Your task to perform on an android device: Search for macbook air on ebay.com, select the first entry, and add it to the cart. Image 0: 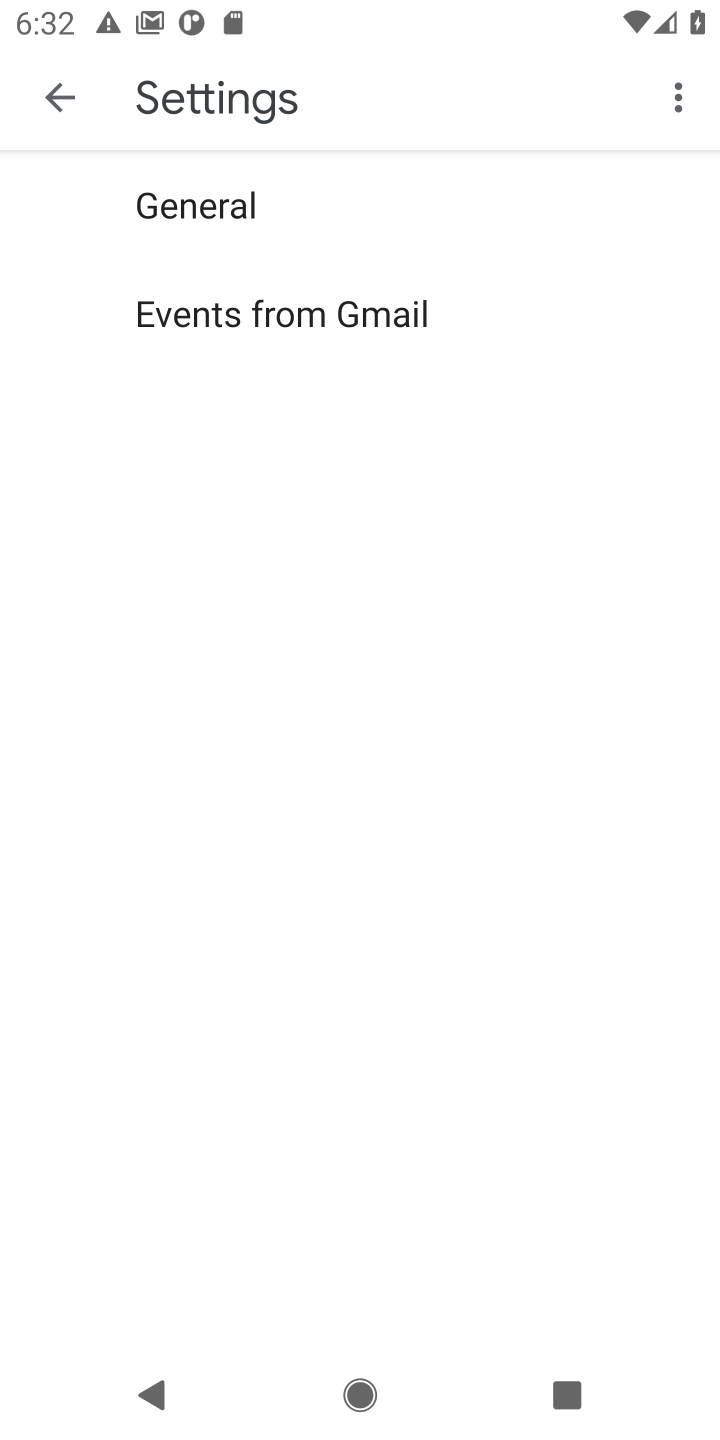
Step 0: press home button
Your task to perform on an android device: Search for macbook air on ebay.com, select the first entry, and add it to the cart. Image 1: 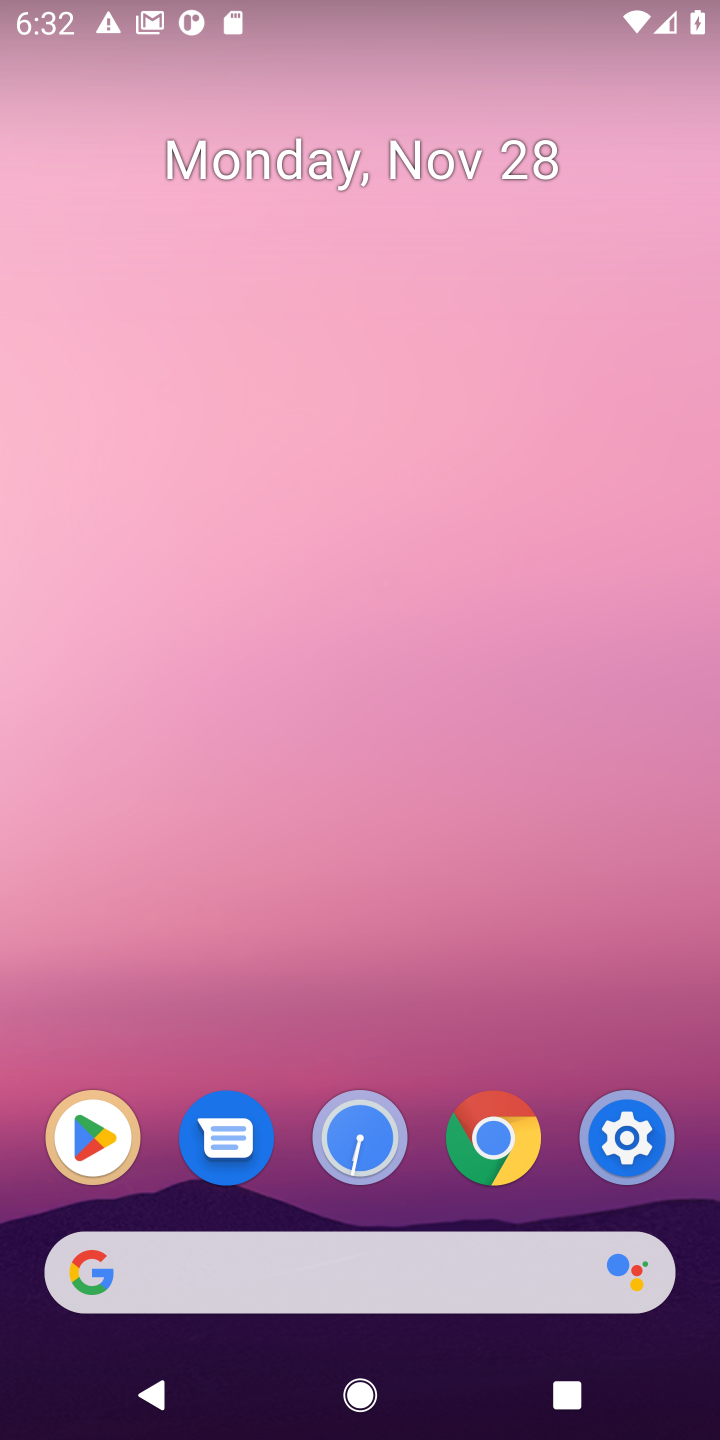
Step 1: click (498, 1142)
Your task to perform on an android device: Search for macbook air on ebay.com, select the first entry, and add it to the cart. Image 2: 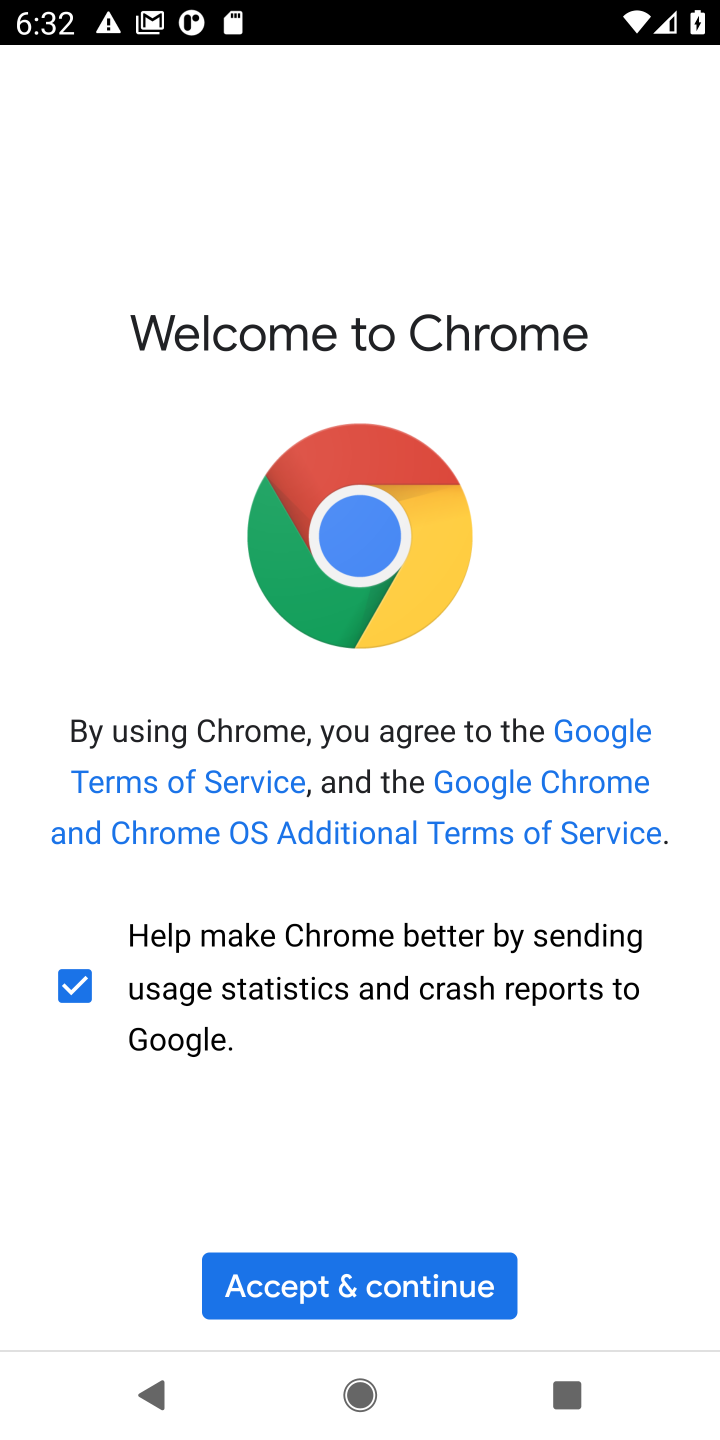
Step 2: click (365, 1290)
Your task to perform on an android device: Search for macbook air on ebay.com, select the first entry, and add it to the cart. Image 3: 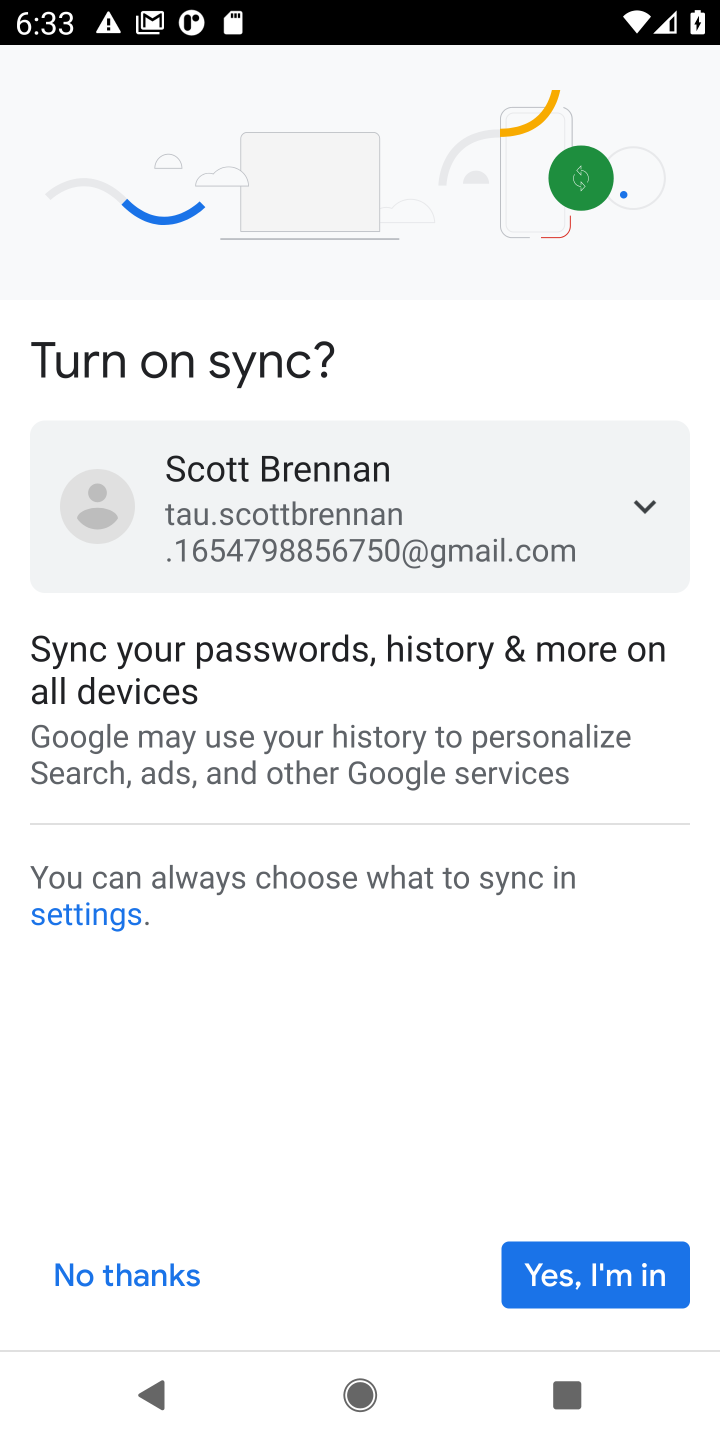
Step 3: click (98, 1265)
Your task to perform on an android device: Search for macbook air on ebay.com, select the first entry, and add it to the cart. Image 4: 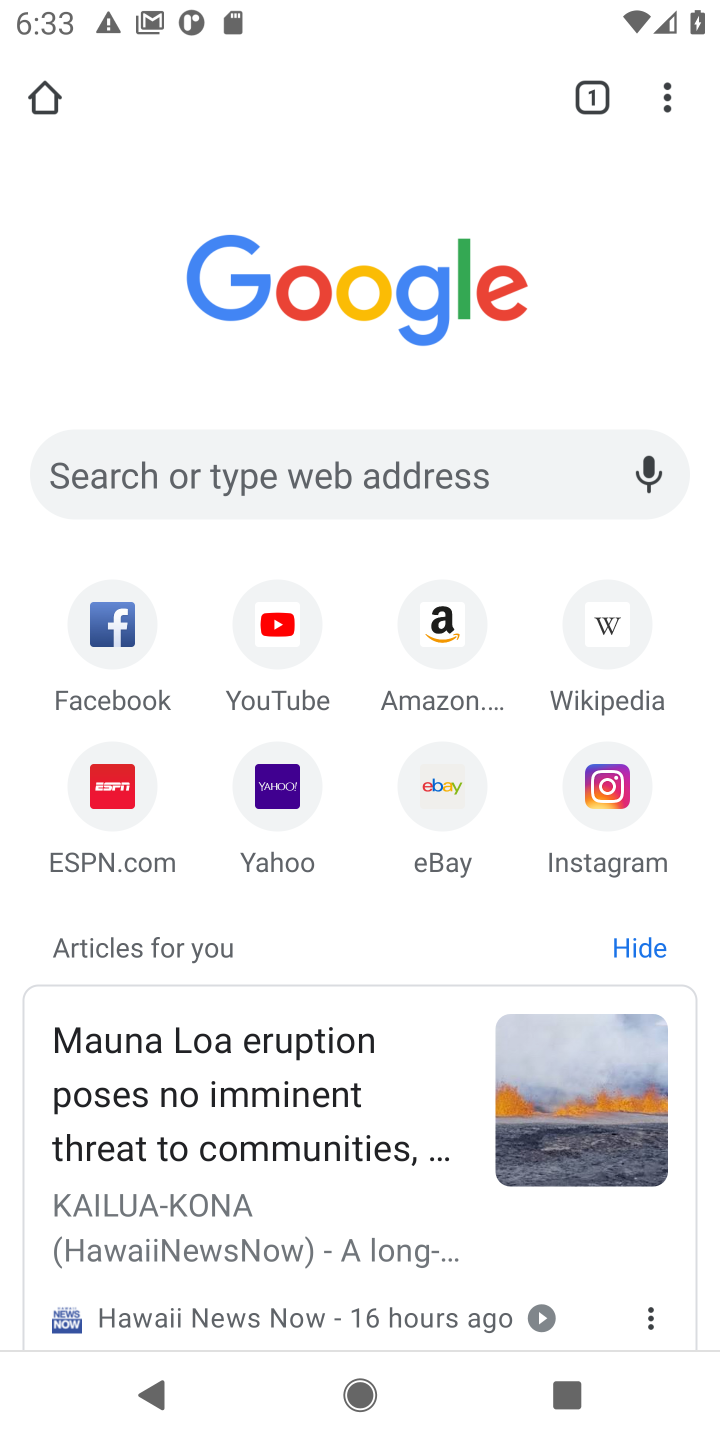
Step 4: click (428, 787)
Your task to perform on an android device: Search for macbook air on ebay.com, select the first entry, and add it to the cart. Image 5: 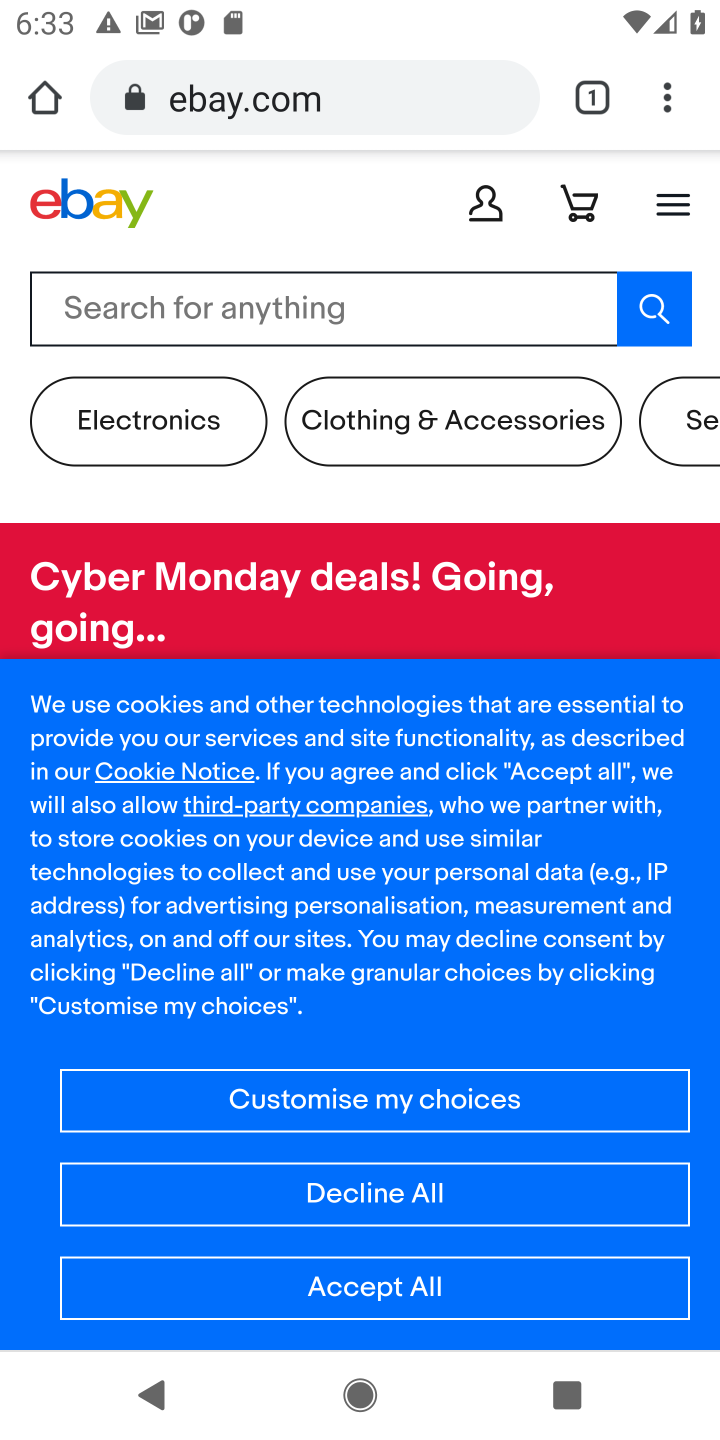
Step 5: click (131, 310)
Your task to perform on an android device: Search for macbook air on ebay.com, select the first entry, and add it to the cart. Image 6: 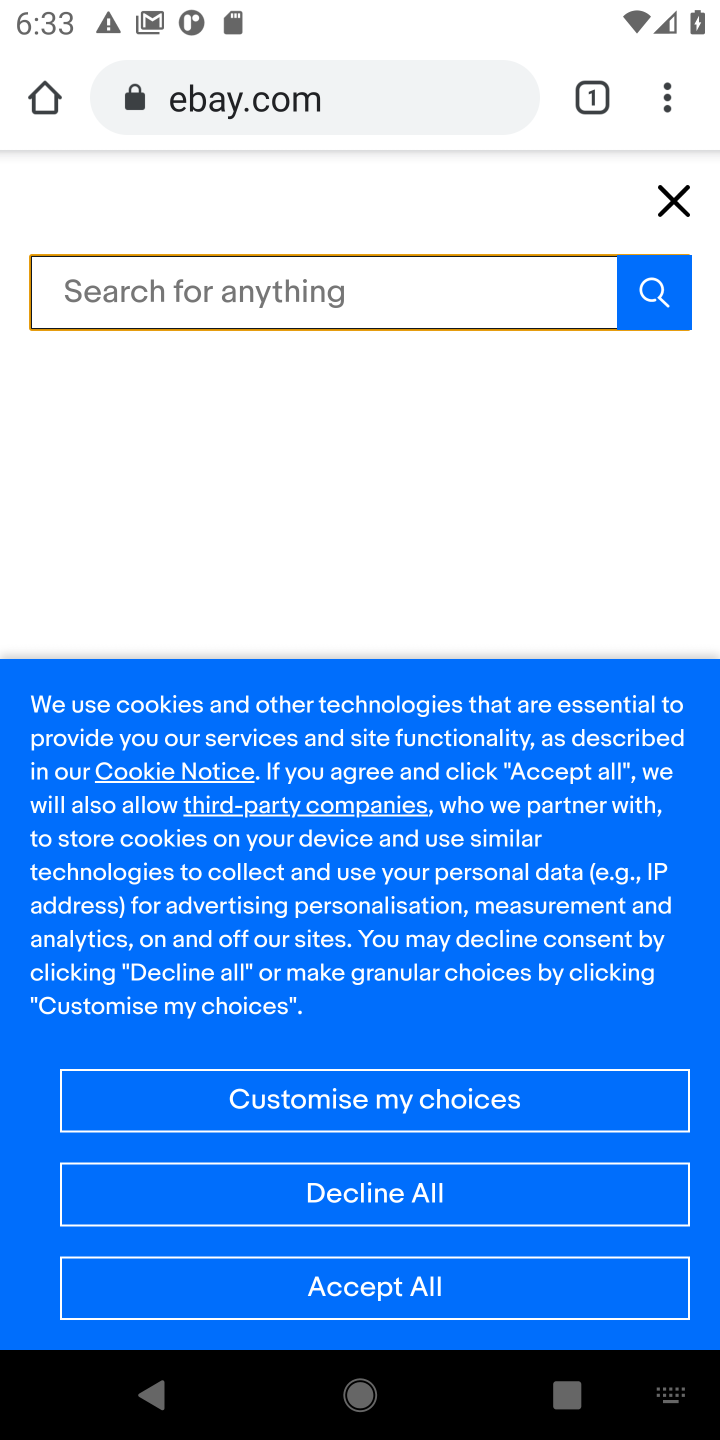
Step 6: type "macbook air"
Your task to perform on an android device: Search for macbook air on ebay.com, select the first entry, and add it to the cart. Image 7: 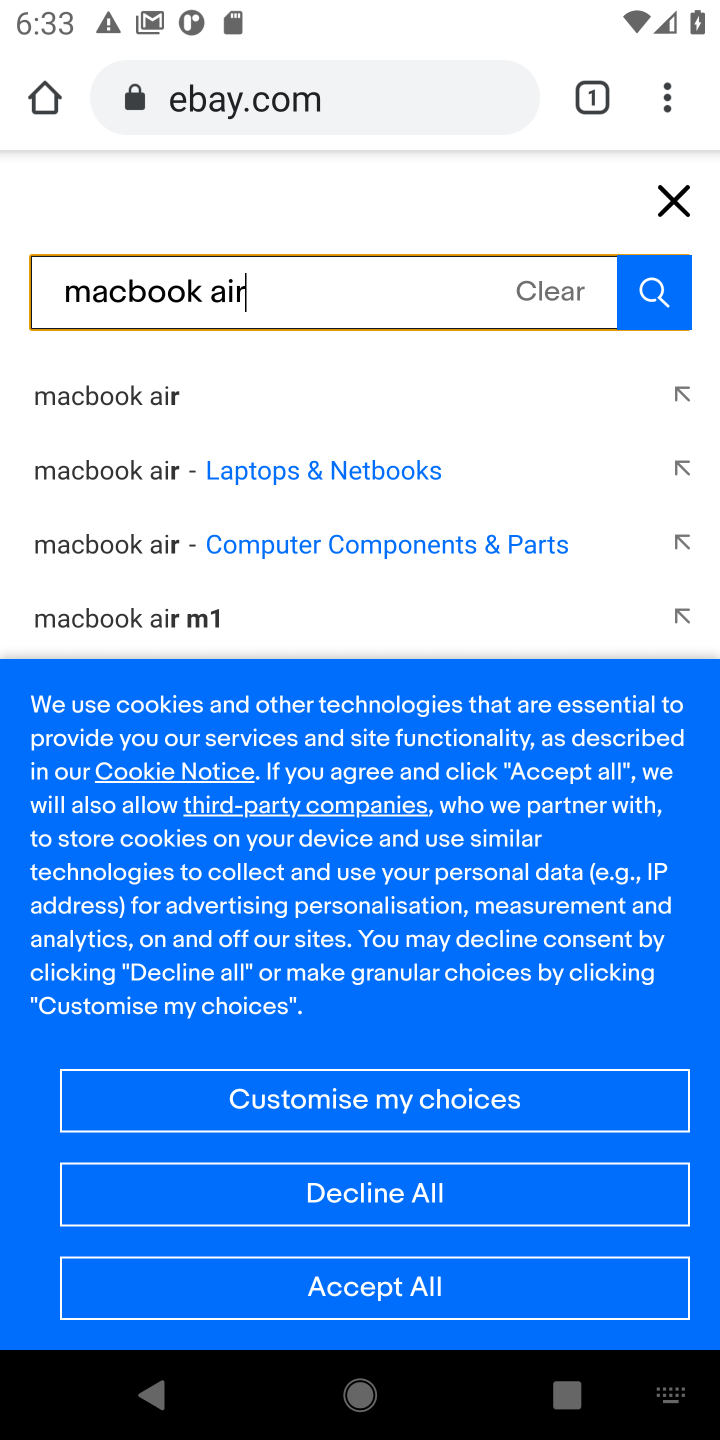
Step 7: click (128, 404)
Your task to perform on an android device: Search for macbook air on ebay.com, select the first entry, and add it to the cart. Image 8: 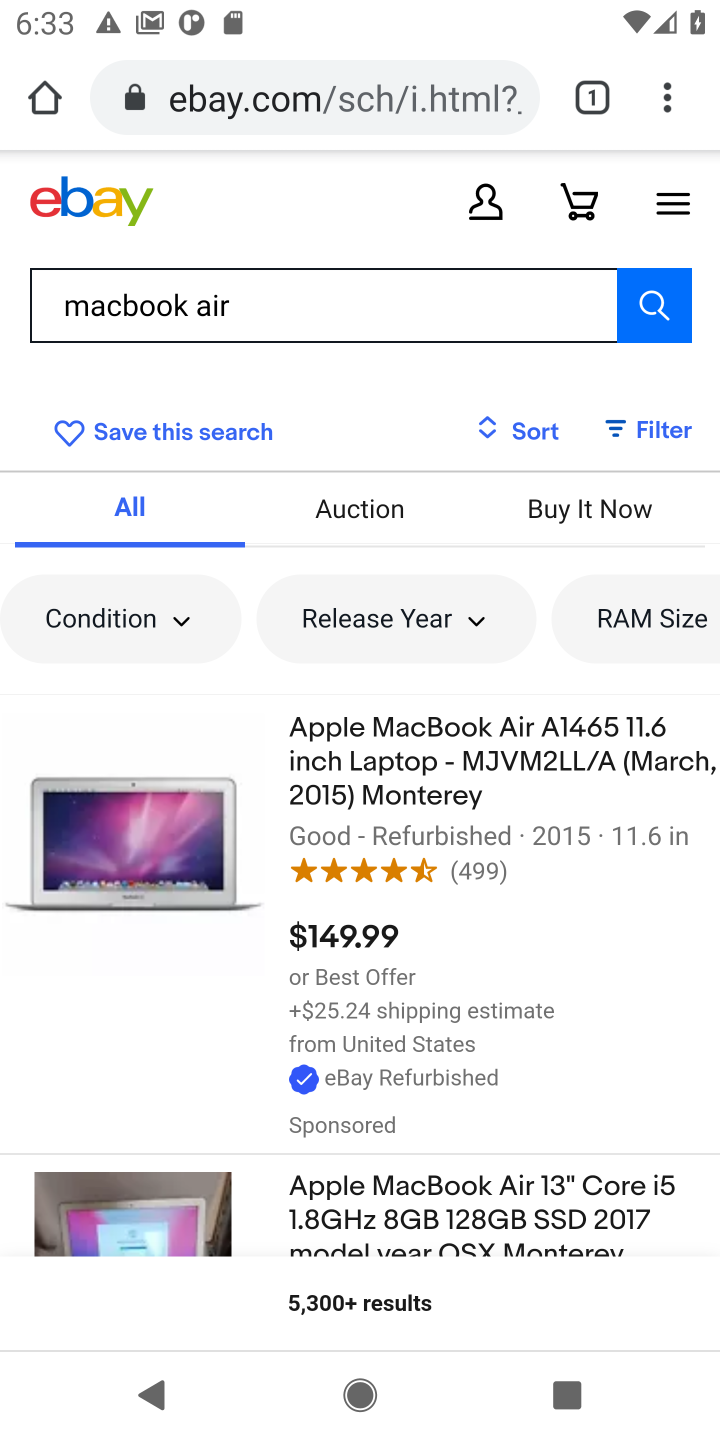
Step 8: click (334, 810)
Your task to perform on an android device: Search for macbook air on ebay.com, select the first entry, and add it to the cart. Image 9: 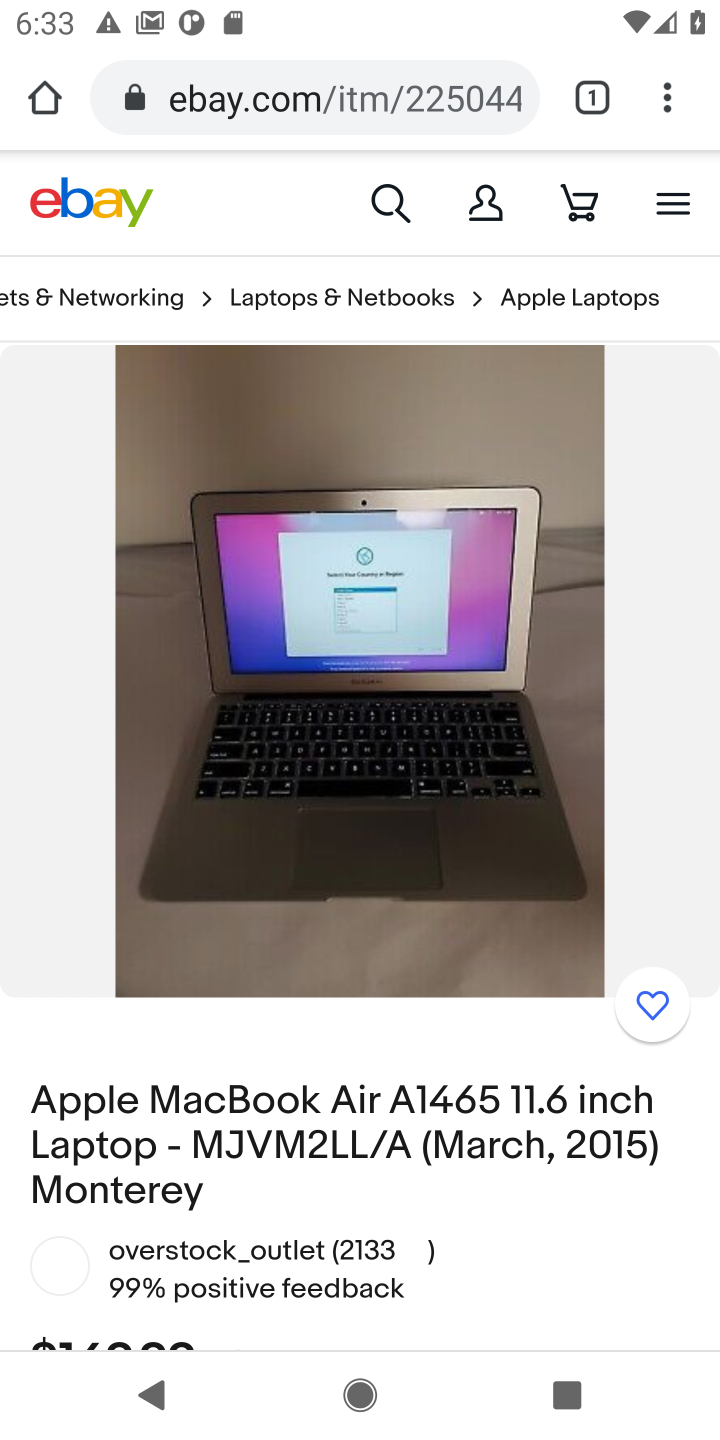
Step 9: drag from (378, 1031) to (346, 513)
Your task to perform on an android device: Search for macbook air on ebay.com, select the first entry, and add it to the cart. Image 10: 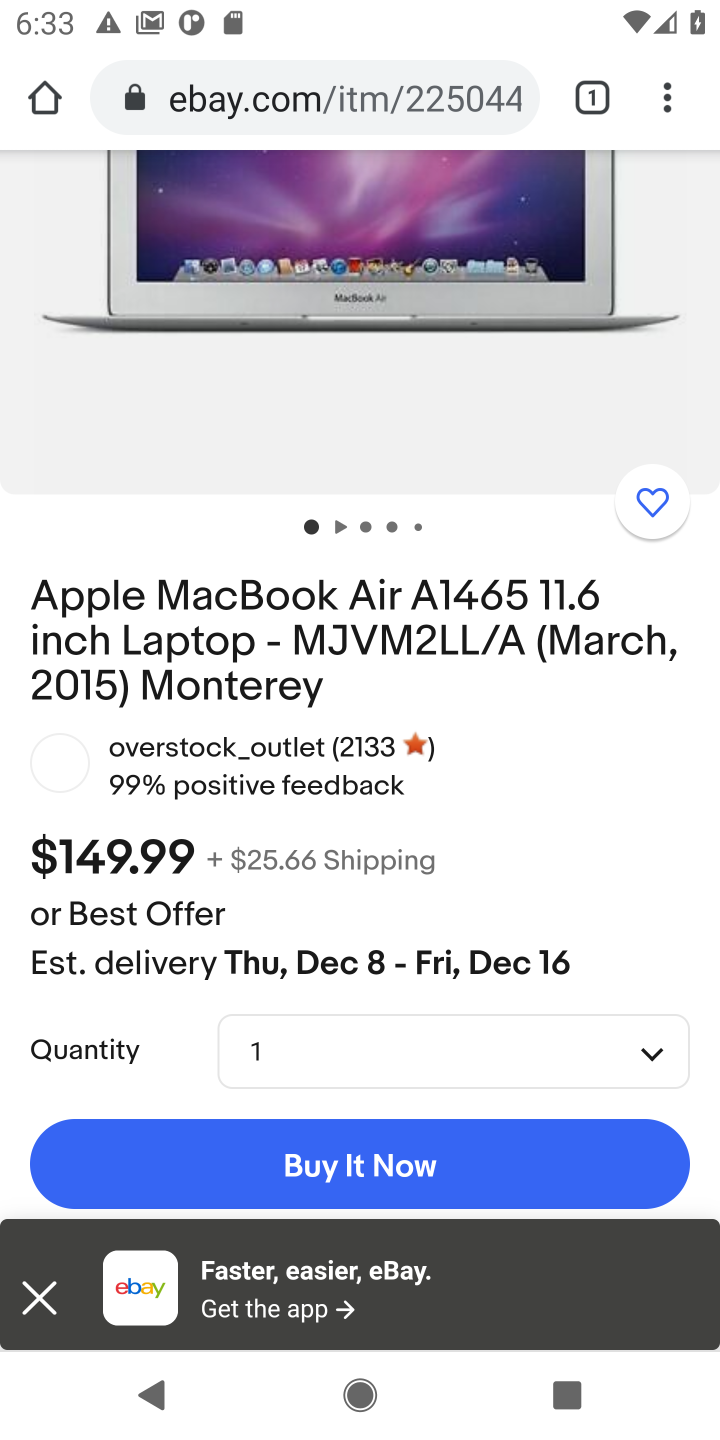
Step 10: drag from (591, 944) to (565, 635)
Your task to perform on an android device: Search for macbook air on ebay.com, select the first entry, and add it to the cart. Image 11: 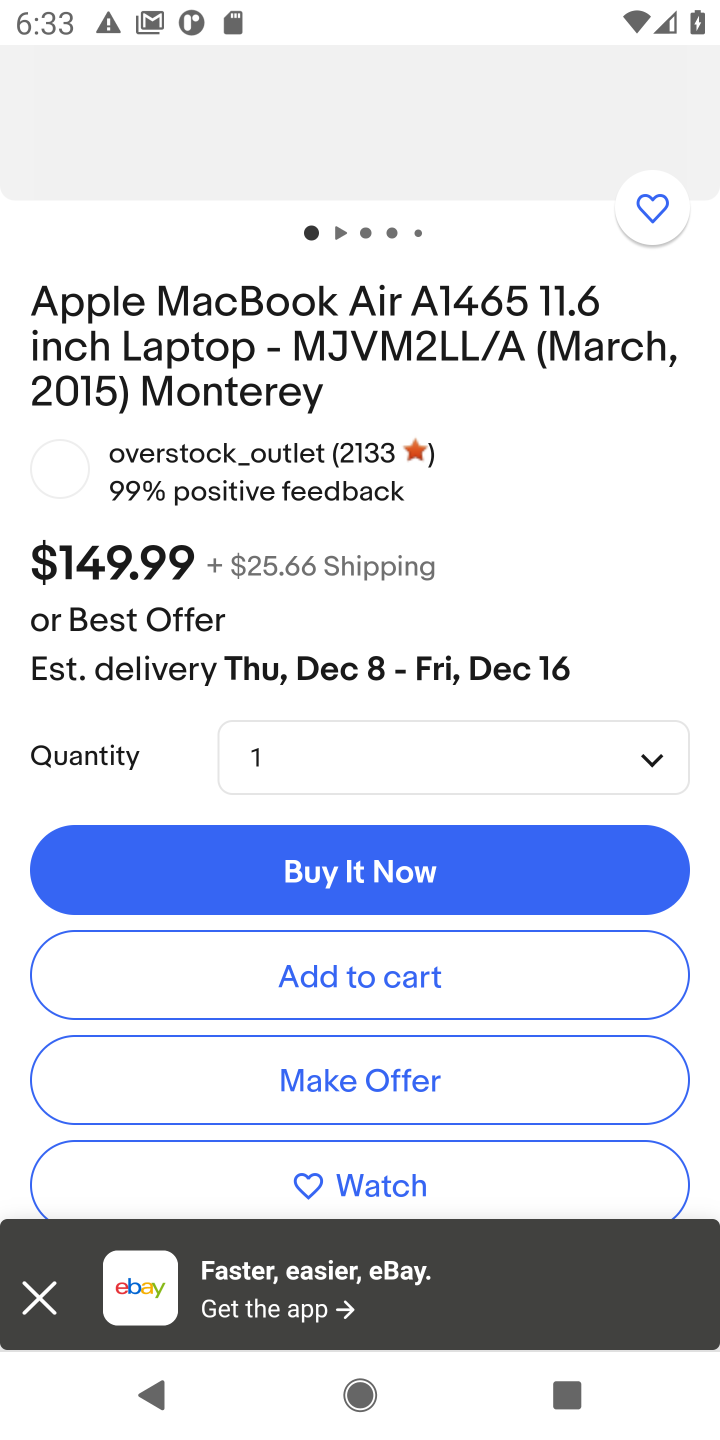
Step 11: click (319, 976)
Your task to perform on an android device: Search for macbook air on ebay.com, select the first entry, and add it to the cart. Image 12: 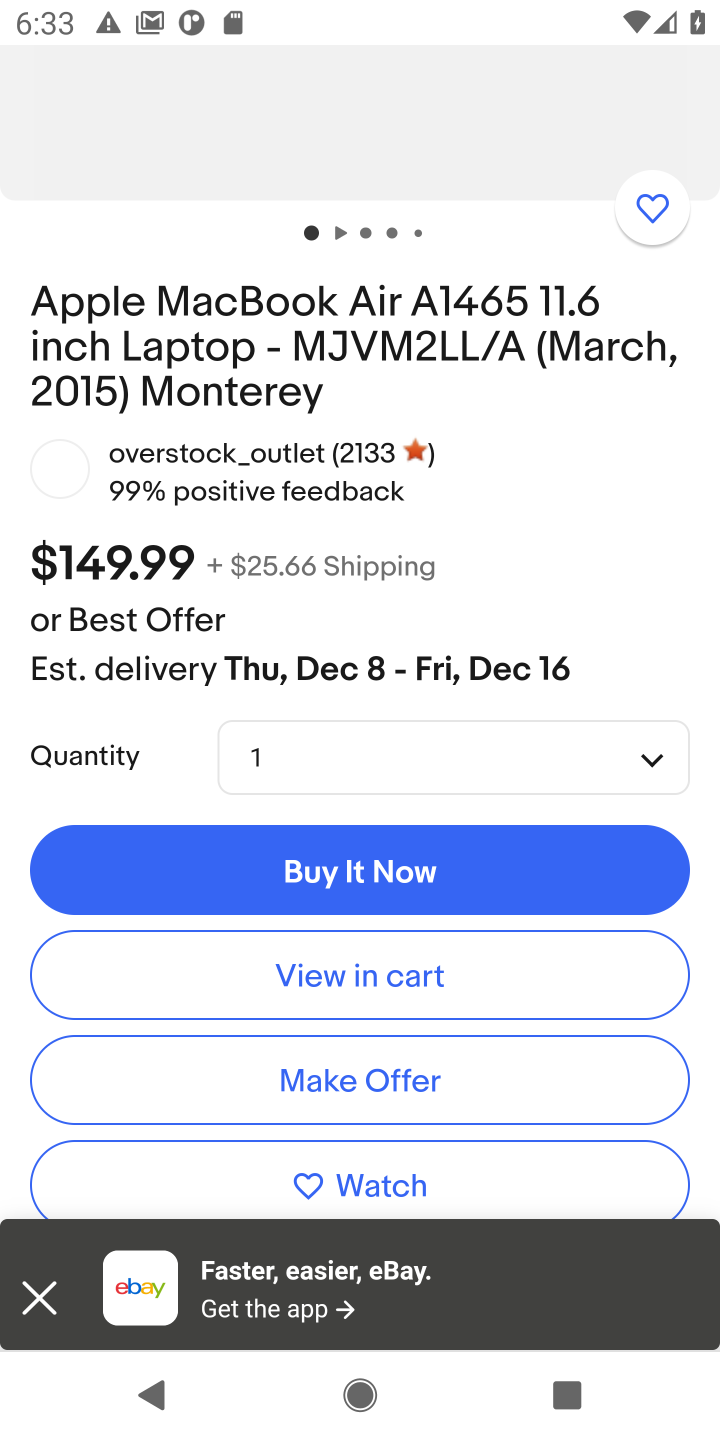
Step 12: task complete